Your task to perform on an android device: Open internet settings Image 0: 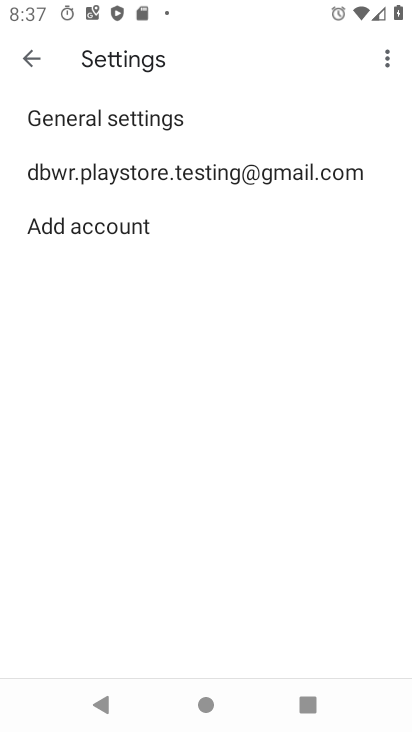
Step 0: press home button
Your task to perform on an android device: Open internet settings Image 1: 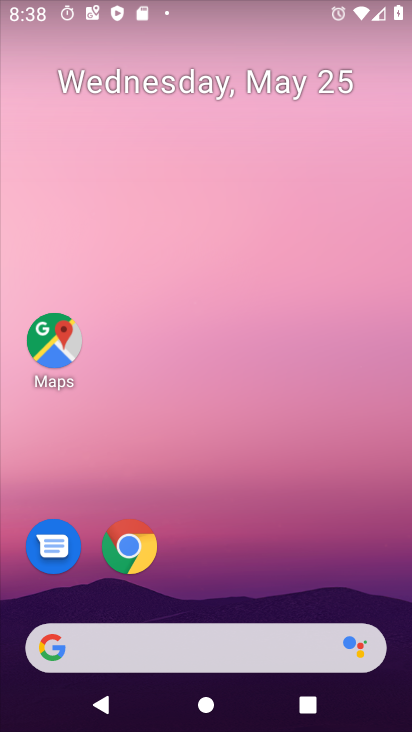
Step 1: drag from (203, 590) to (34, 697)
Your task to perform on an android device: Open internet settings Image 2: 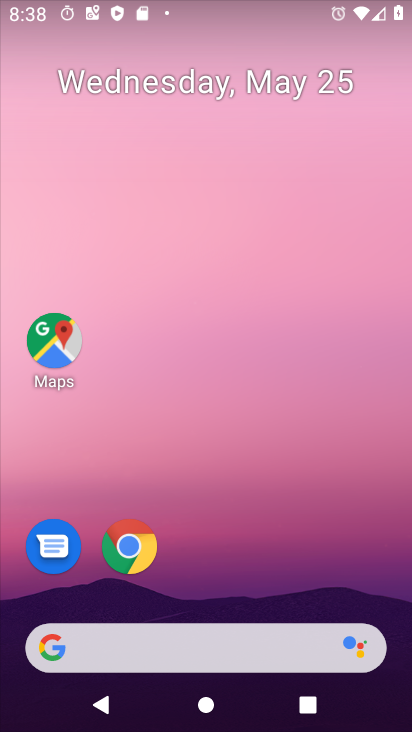
Step 2: drag from (221, 602) to (253, 46)
Your task to perform on an android device: Open internet settings Image 3: 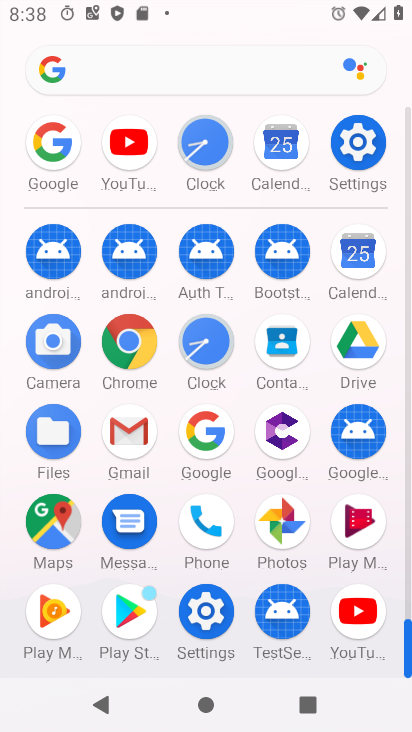
Step 3: click (211, 620)
Your task to perform on an android device: Open internet settings Image 4: 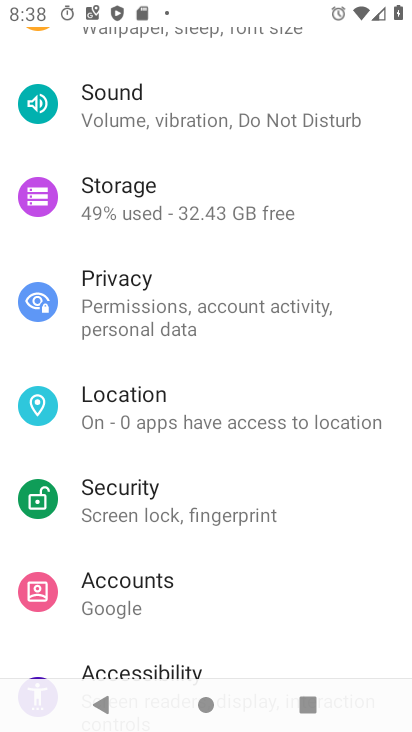
Step 4: drag from (240, 156) to (242, 526)
Your task to perform on an android device: Open internet settings Image 5: 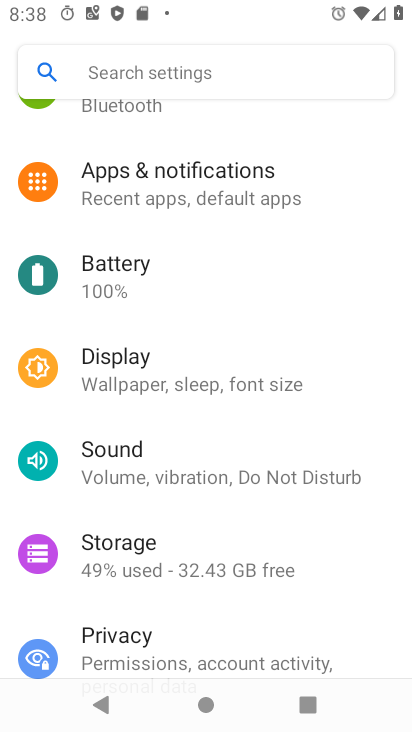
Step 5: drag from (197, 258) to (212, 641)
Your task to perform on an android device: Open internet settings Image 6: 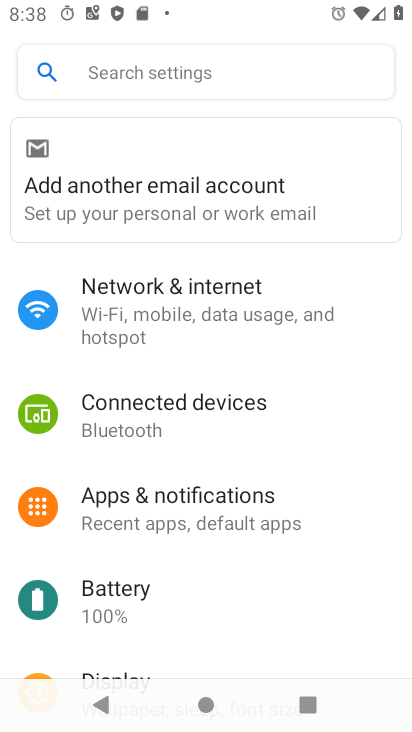
Step 6: click (170, 305)
Your task to perform on an android device: Open internet settings Image 7: 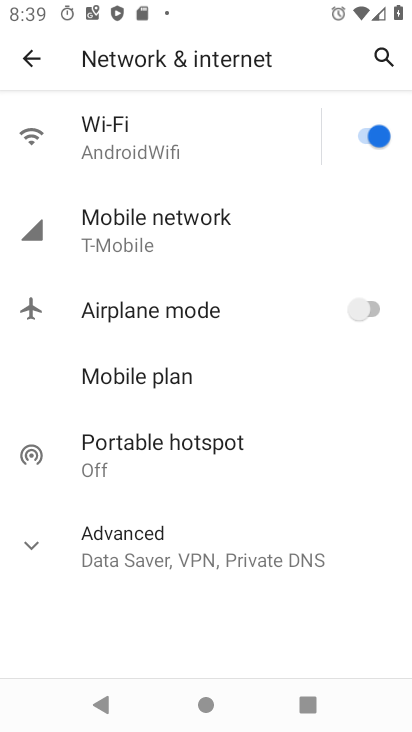
Step 7: task complete